Your task to perform on an android device: change alarm snooze length Image 0: 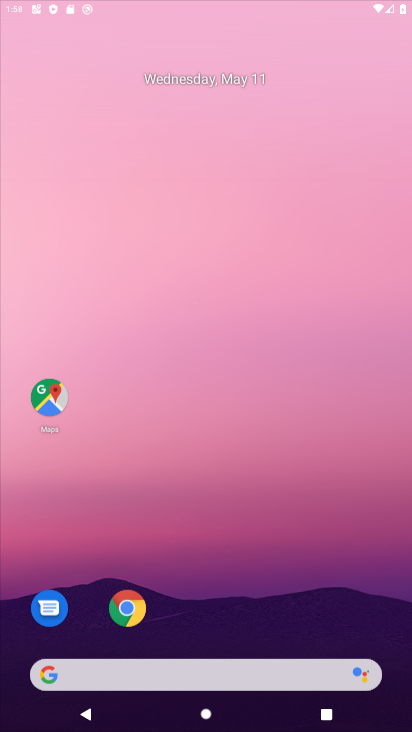
Step 0: press home button
Your task to perform on an android device: change alarm snooze length Image 1: 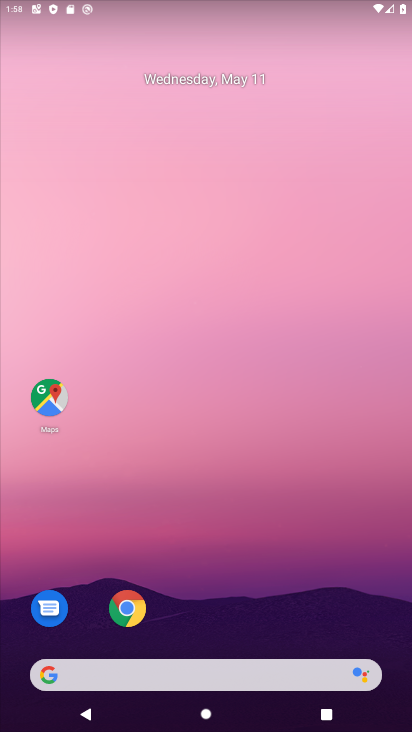
Step 1: drag from (268, 531) to (367, 2)
Your task to perform on an android device: change alarm snooze length Image 2: 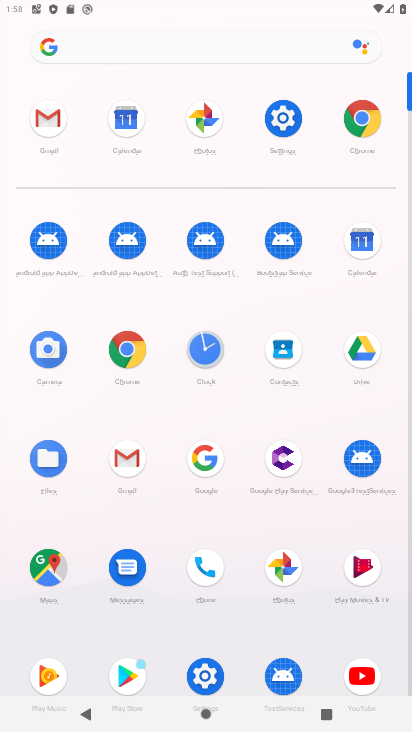
Step 2: click (204, 349)
Your task to perform on an android device: change alarm snooze length Image 3: 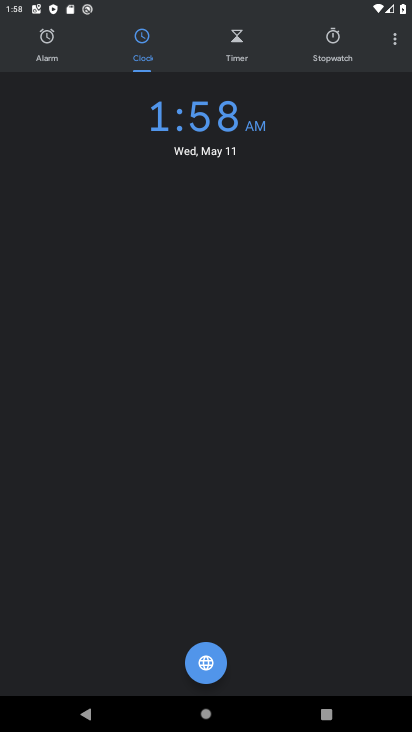
Step 3: click (395, 47)
Your task to perform on an android device: change alarm snooze length Image 4: 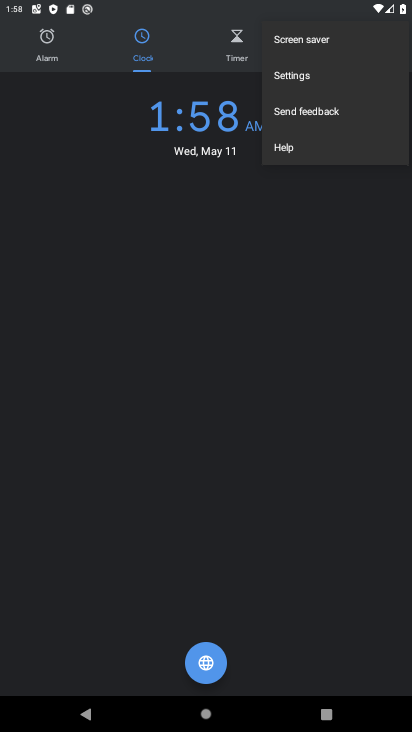
Step 4: click (356, 81)
Your task to perform on an android device: change alarm snooze length Image 5: 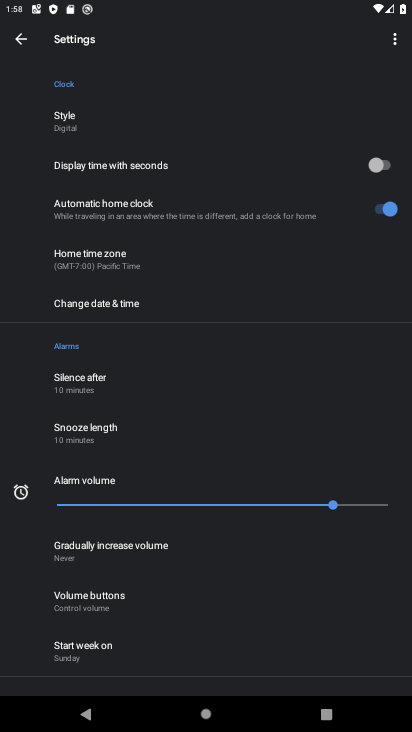
Step 5: drag from (281, 442) to (296, 153)
Your task to perform on an android device: change alarm snooze length Image 6: 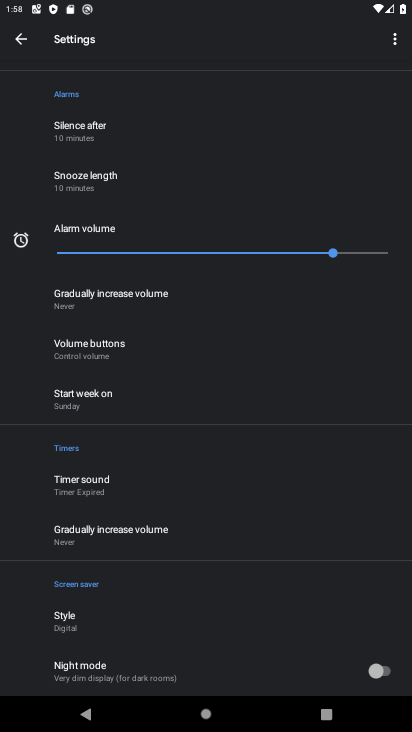
Step 6: drag from (210, 600) to (261, 330)
Your task to perform on an android device: change alarm snooze length Image 7: 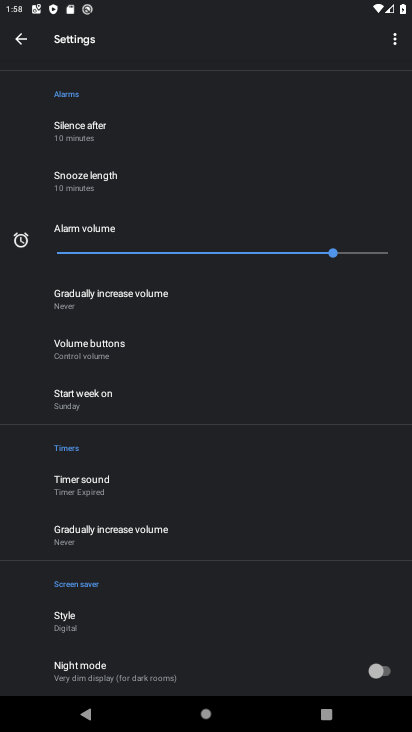
Step 7: drag from (147, 630) to (132, 186)
Your task to perform on an android device: change alarm snooze length Image 8: 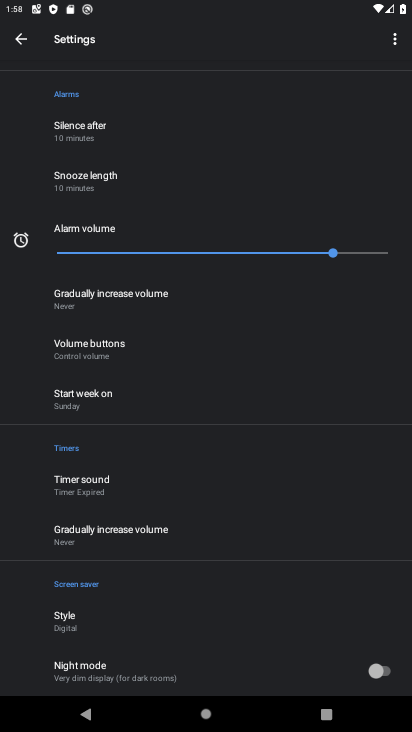
Step 8: click (77, 174)
Your task to perform on an android device: change alarm snooze length Image 9: 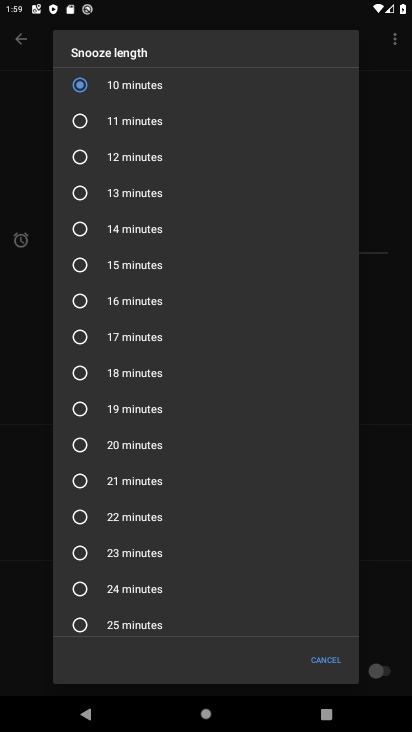
Step 9: drag from (179, 152) to (302, 588)
Your task to perform on an android device: change alarm snooze length Image 10: 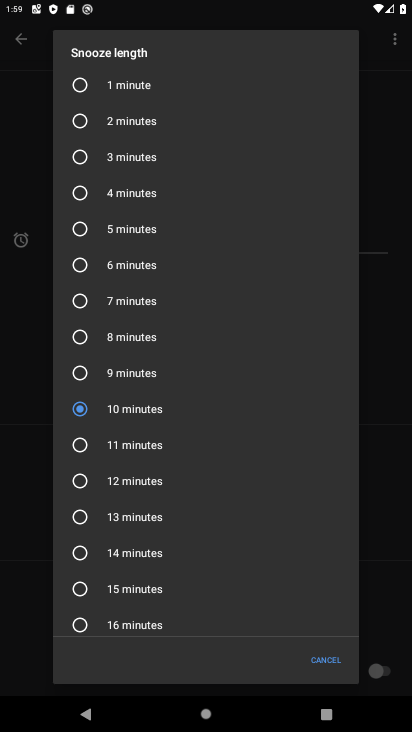
Step 10: click (74, 446)
Your task to perform on an android device: change alarm snooze length Image 11: 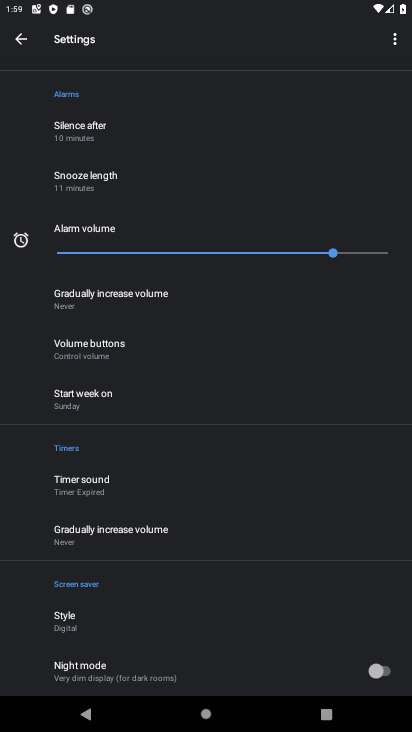
Step 11: task complete